Your task to perform on an android device: turn on improve location accuracy Image 0: 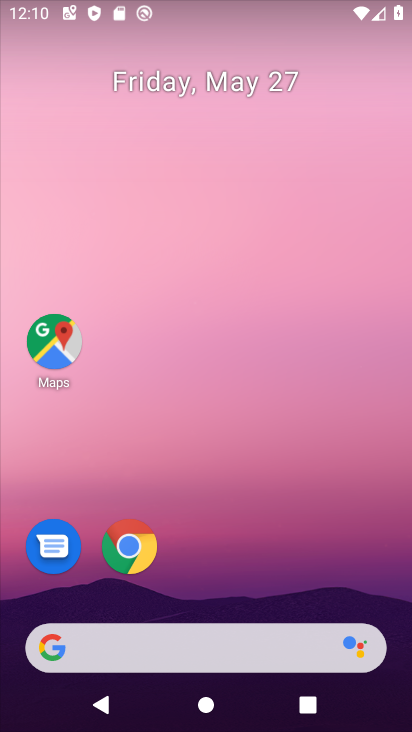
Step 0: drag from (241, 561) to (130, 78)
Your task to perform on an android device: turn on improve location accuracy Image 1: 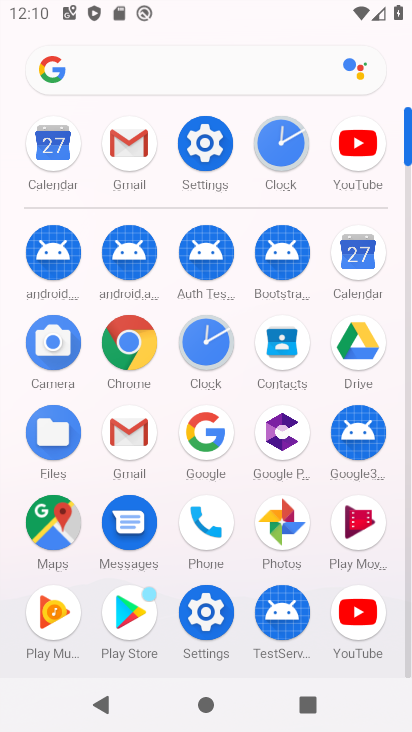
Step 1: click (200, 139)
Your task to perform on an android device: turn on improve location accuracy Image 2: 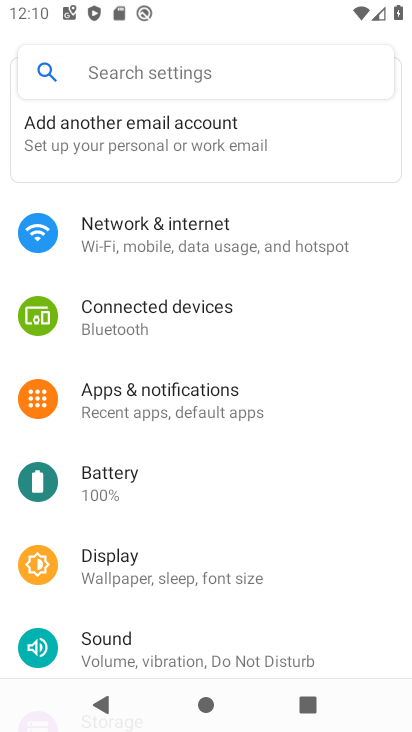
Step 2: drag from (188, 583) to (115, 157)
Your task to perform on an android device: turn on improve location accuracy Image 3: 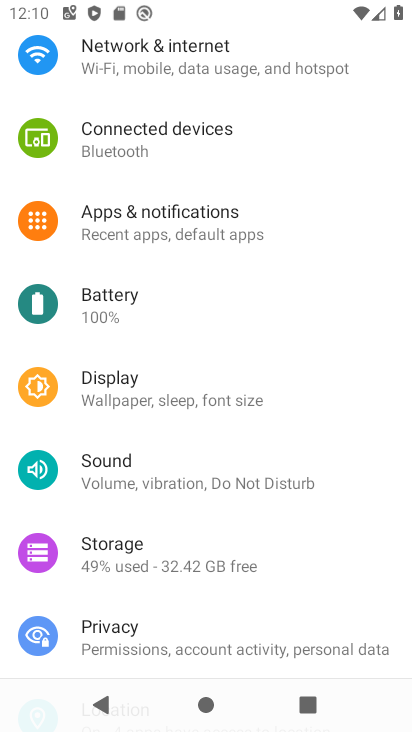
Step 3: drag from (148, 621) to (115, 356)
Your task to perform on an android device: turn on improve location accuracy Image 4: 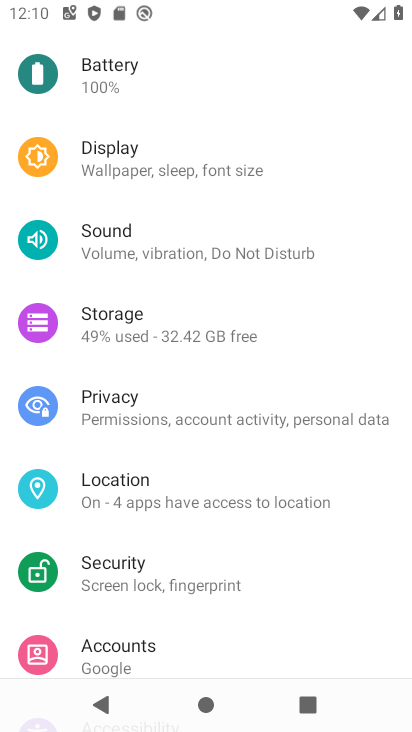
Step 4: click (118, 484)
Your task to perform on an android device: turn on improve location accuracy Image 5: 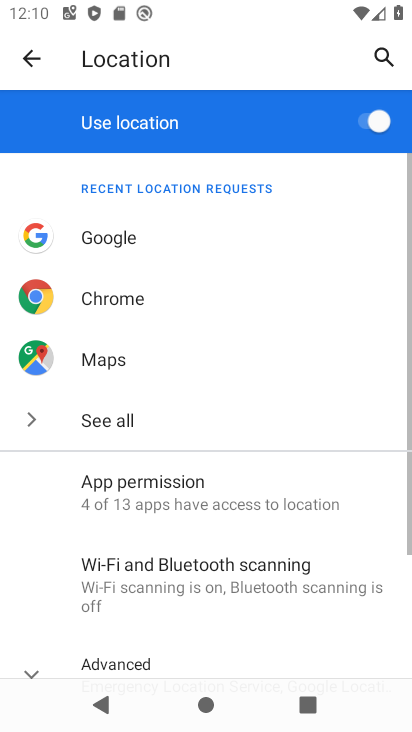
Step 5: click (114, 653)
Your task to perform on an android device: turn on improve location accuracy Image 6: 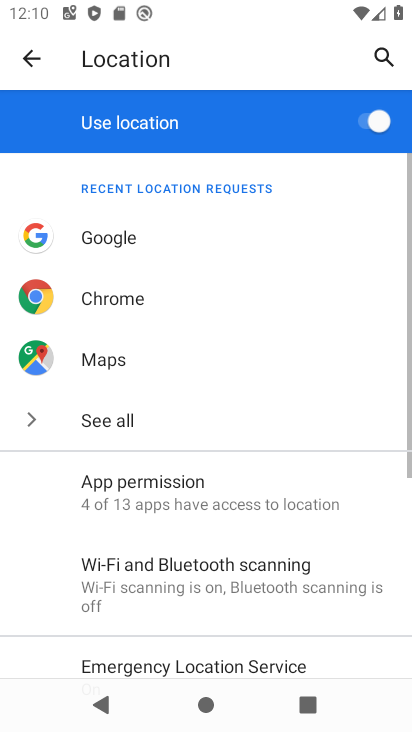
Step 6: drag from (182, 614) to (123, 270)
Your task to perform on an android device: turn on improve location accuracy Image 7: 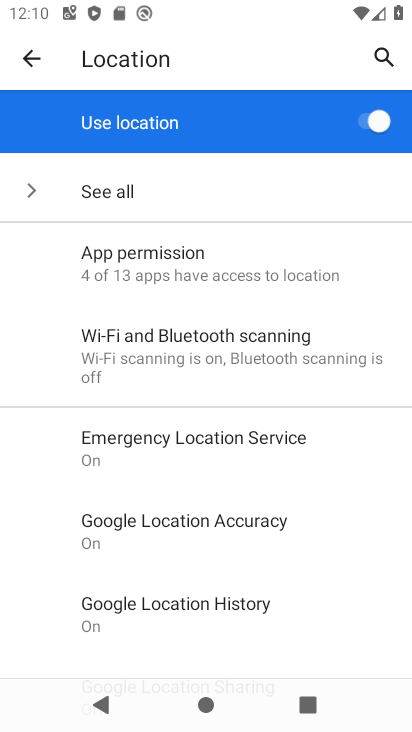
Step 7: click (144, 530)
Your task to perform on an android device: turn on improve location accuracy Image 8: 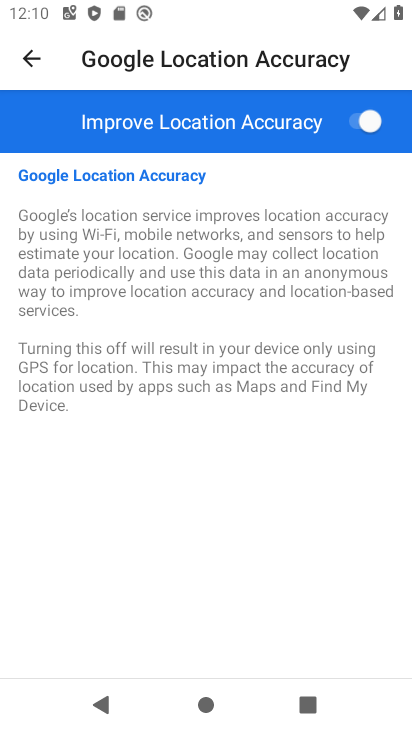
Step 8: task complete